Your task to perform on an android device: Open Google Maps Image 0: 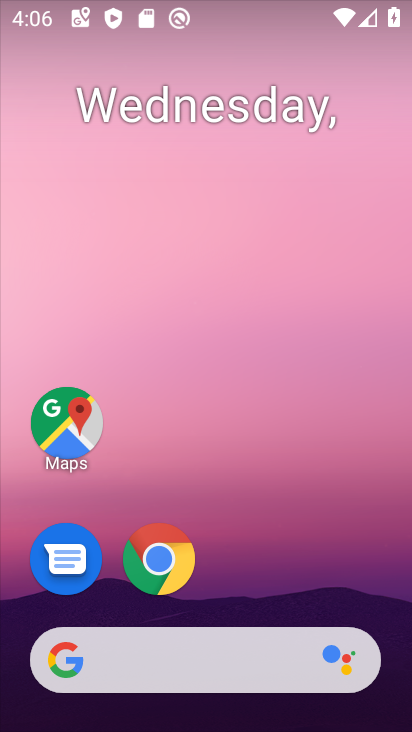
Step 0: click (68, 435)
Your task to perform on an android device: Open Google Maps Image 1: 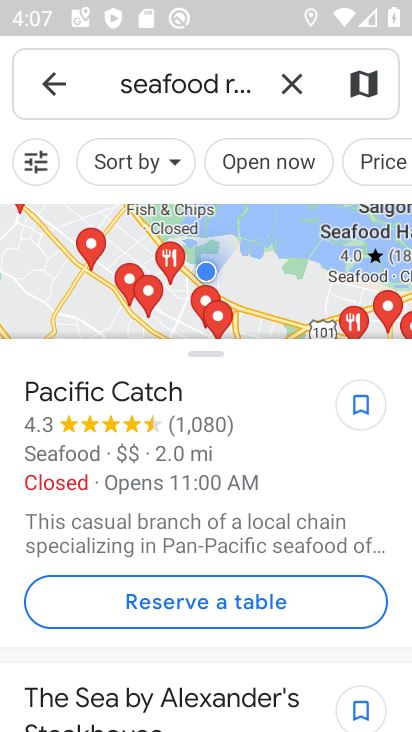
Step 1: task complete